Your task to perform on an android device: refresh tabs in the chrome app Image 0: 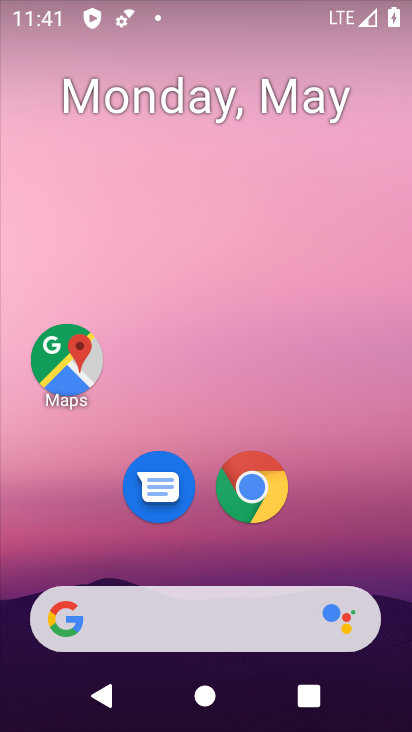
Step 0: click (242, 501)
Your task to perform on an android device: refresh tabs in the chrome app Image 1: 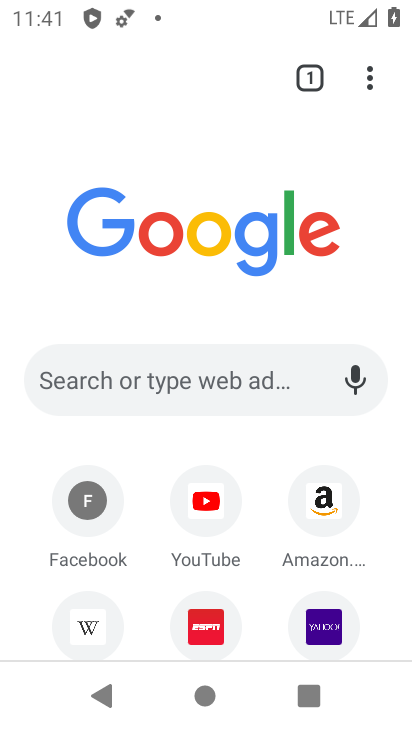
Step 1: click (372, 80)
Your task to perform on an android device: refresh tabs in the chrome app Image 2: 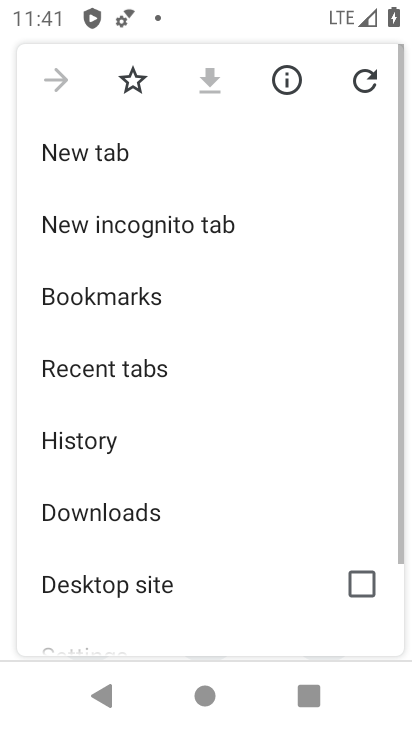
Step 2: click (363, 79)
Your task to perform on an android device: refresh tabs in the chrome app Image 3: 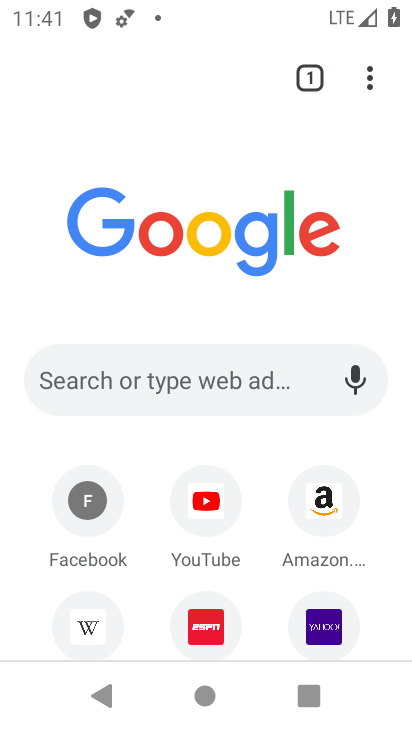
Step 3: task complete